Your task to perform on an android device: Go to calendar. Show me events next week Image 0: 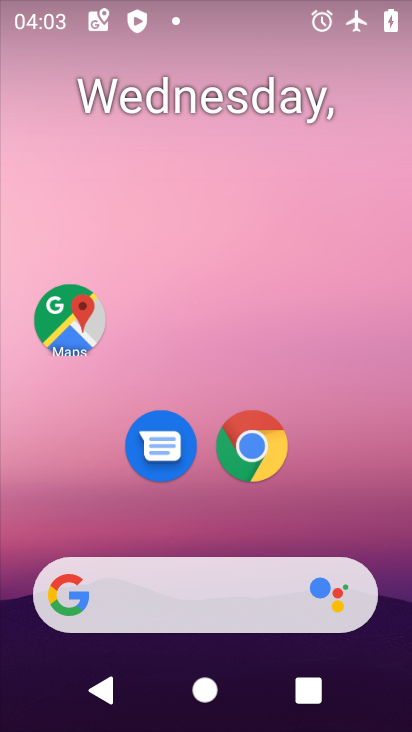
Step 0: drag from (200, 473) to (200, 140)
Your task to perform on an android device: Go to calendar. Show me events next week Image 1: 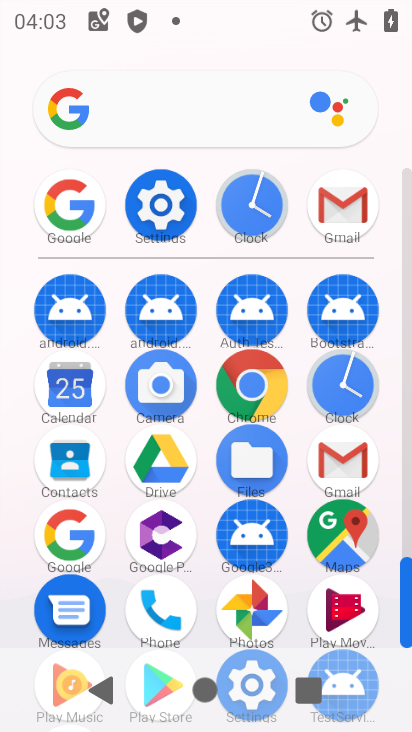
Step 1: click (75, 385)
Your task to perform on an android device: Go to calendar. Show me events next week Image 2: 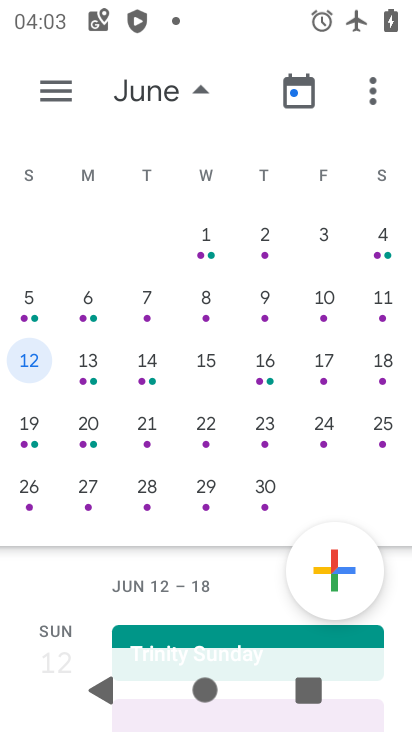
Step 2: drag from (57, 351) to (340, 342)
Your task to perform on an android device: Go to calendar. Show me events next week Image 3: 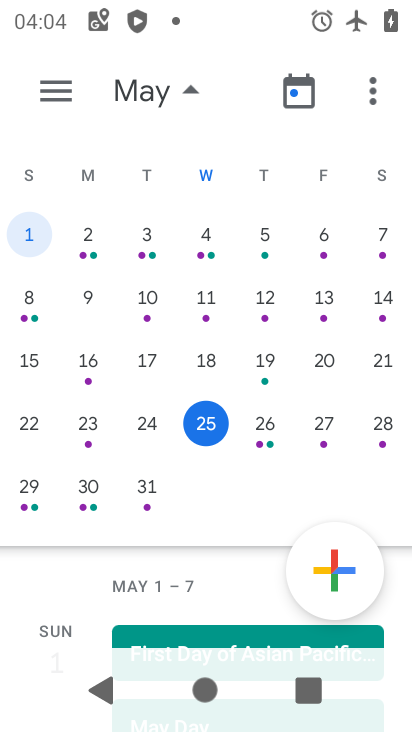
Step 3: click (32, 489)
Your task to perform on an android device: Go to calendar. Show me events next week Image 4: 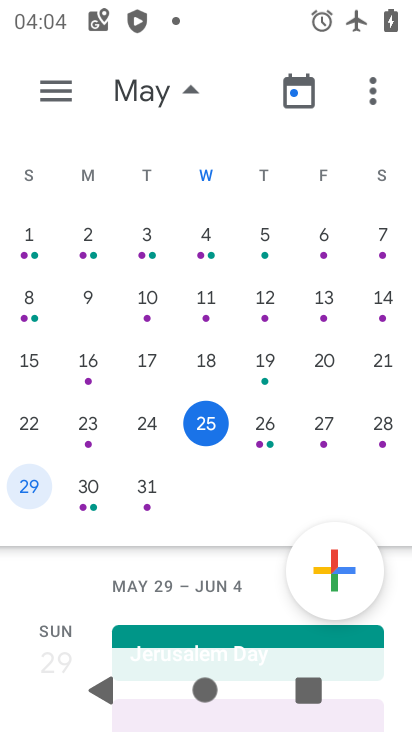
Step 4: task complete